Your task to perform on an android device: Search for seafood restaurants on Google Maps Image 0: 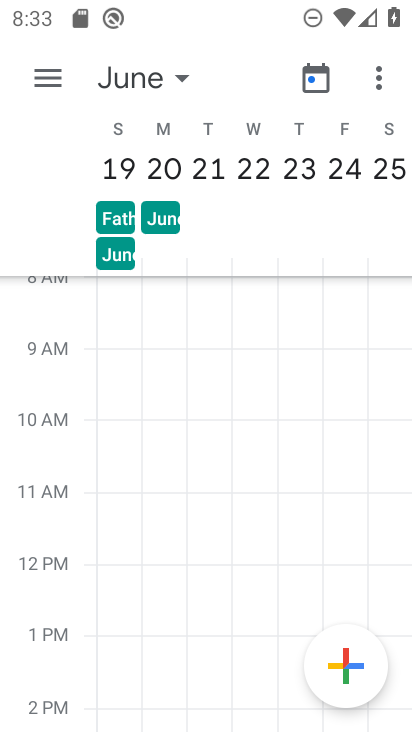
Step 0: press home button
Your task to perform on an android device: Search for seafood restaurants on Google Maps Image 1: 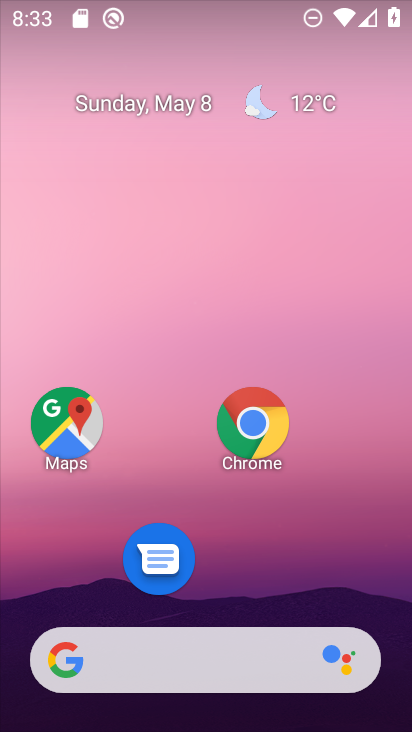
Step 1: click (74, 426)
Your task to perform on an android device: Search for seafood restaurants on Google Maps Image 2: 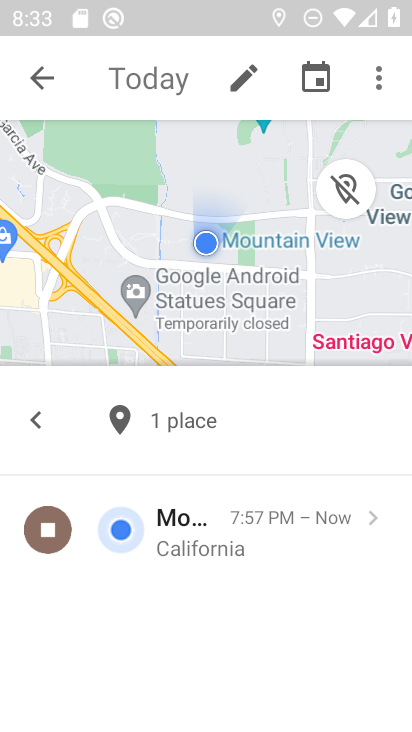
Step 2: click (10, 75)
Your task to perform on an android device: Search for seafood restaurants on Google Maps Image 3: 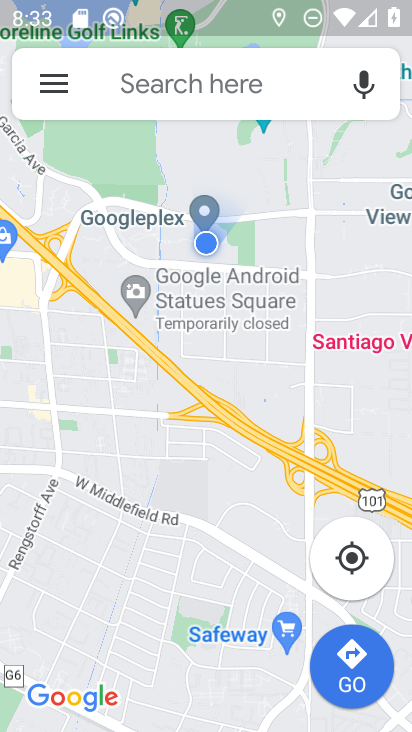
Step 3: click (139, 92)
Your task to perform on an android device: Search for seafood restaurants on Google Maps Image 4: 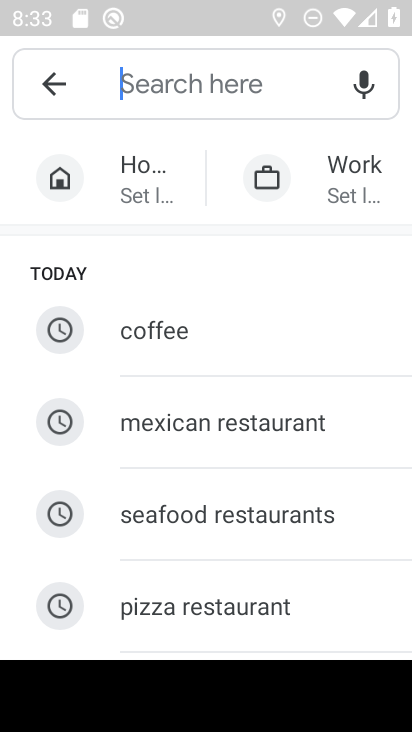
Step 4: type "seafood restaurant "
Your task to perform on an android device: Search for seafood restaurants on Google Maps Image 5: 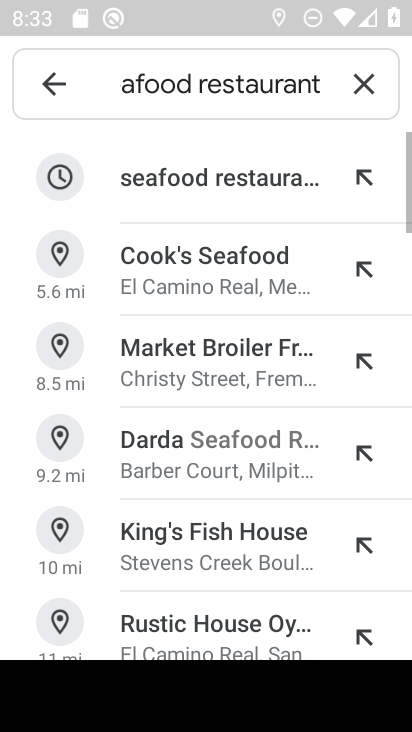
Step 5: click (139, 185)
Your task to perform on an android device: Search for seafood restaurants on Google Maps Image 6: 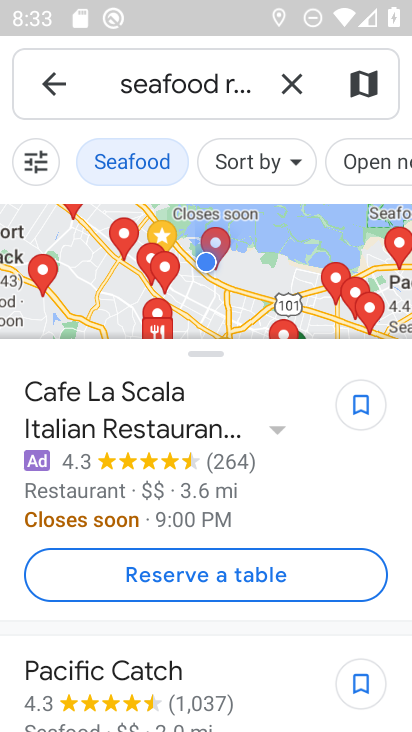
Step 6: task complete